Your task to perform on an android device: clear history in the chrome app Image 0: 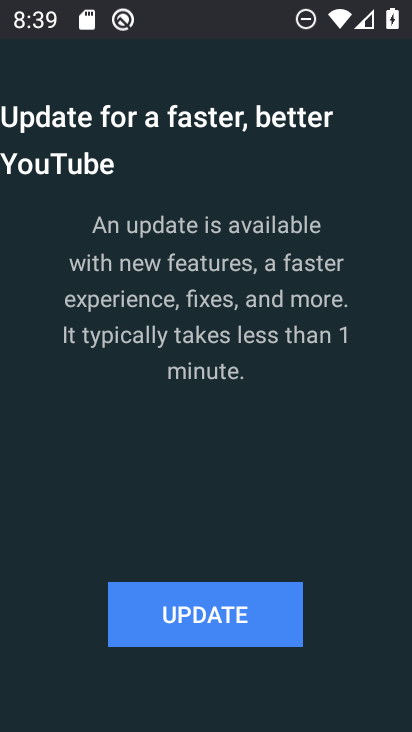
Step 0: press back button
Your task to perform on an android device: clear history in the chrome app Image 1: 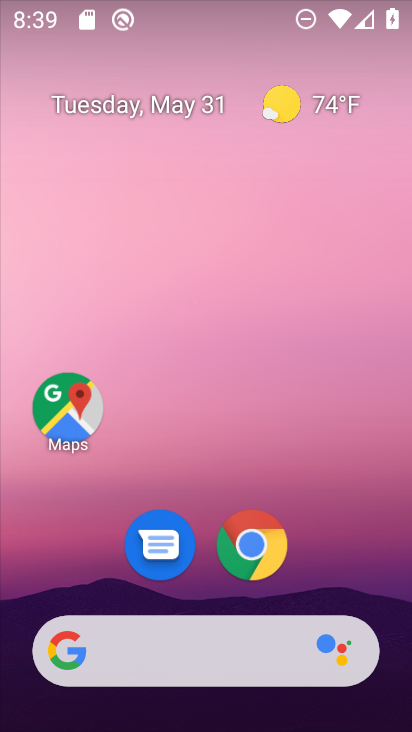
Step 1: drag from (315, 531) to (192, 24)
Your task to perform on an android device: clear history in the chrome app Image 2: 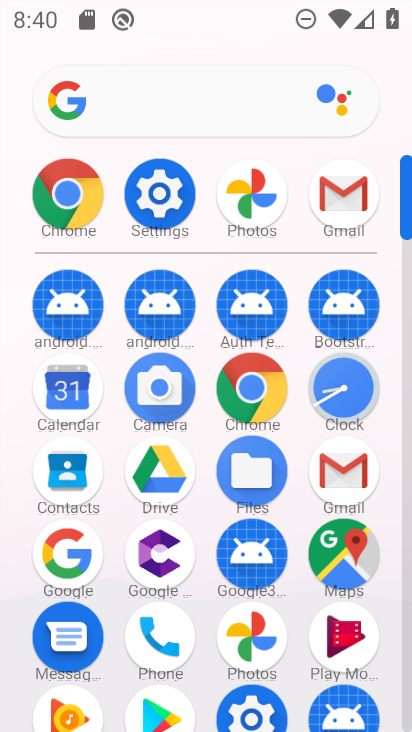
Step 2: drag from (19, 576) to (12, 255)
Your task to perform on an android device: clear history in the chrome app Image 3: 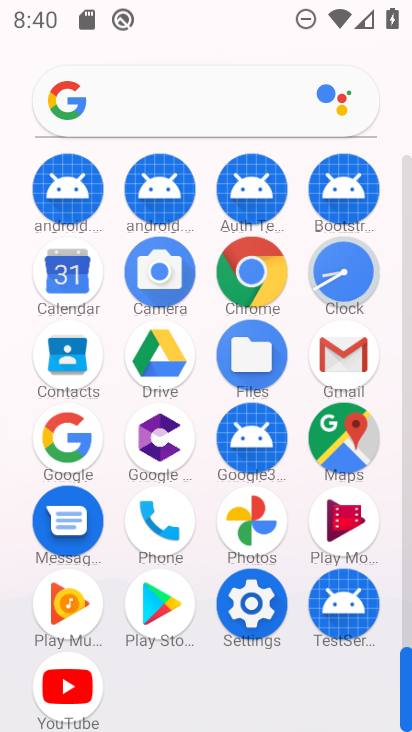
Step 3: drag from (21, 567) to (17, 257)
Your task to perform on an android device: clear history in the chrome app Image 4: 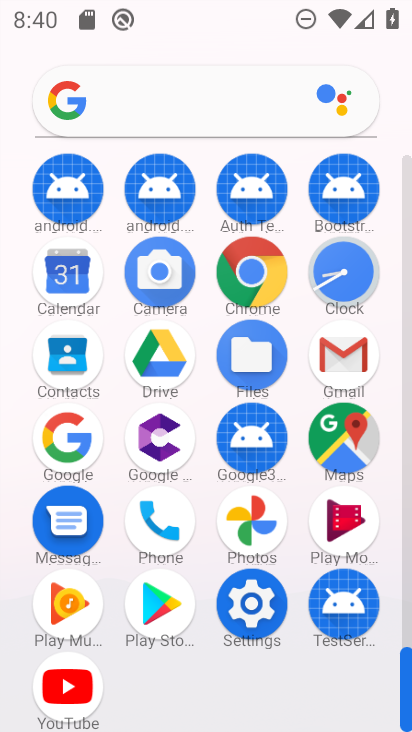
Step 4: click (247, 266)
Your task to perform on an android device: clear history in the chrome app Image 5: 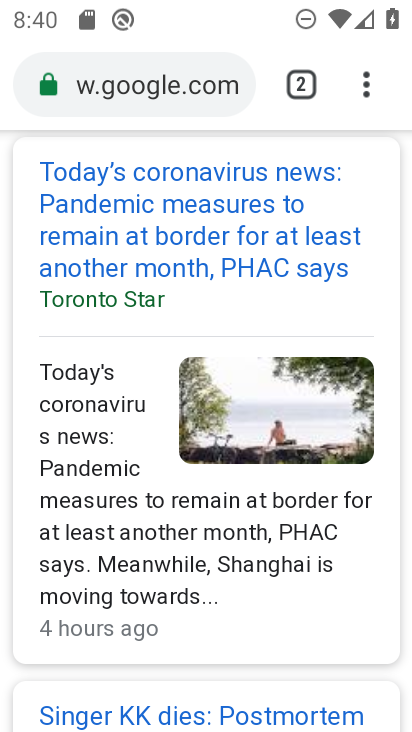
Step 5: drag from (359, 88) to (129, 468)
Your task to perform on an android device: clear history in the chrome app Image 6: 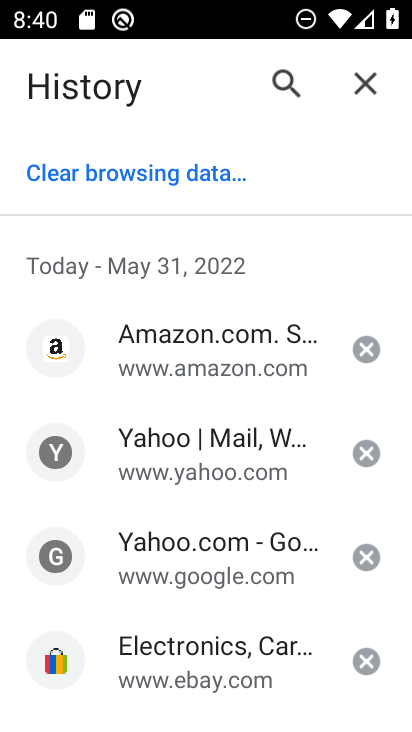
Step 6: click (165, 173)
Your task to perform on an android device: clear history in the chrome app Image 7: 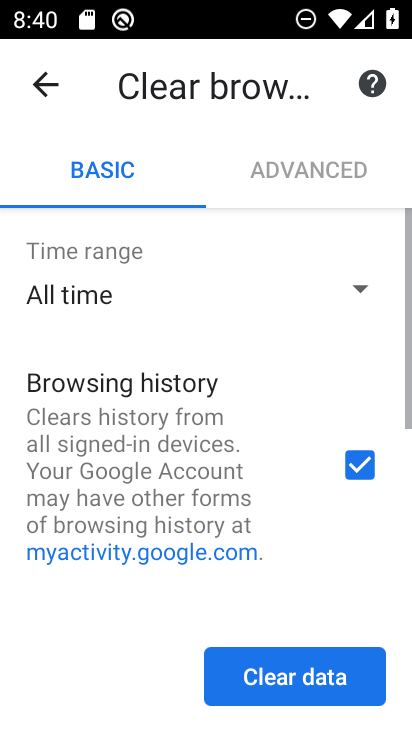
Step 7: click (336, 679)
Your task to perform on an android device: clear history in the chrome app Image 8: 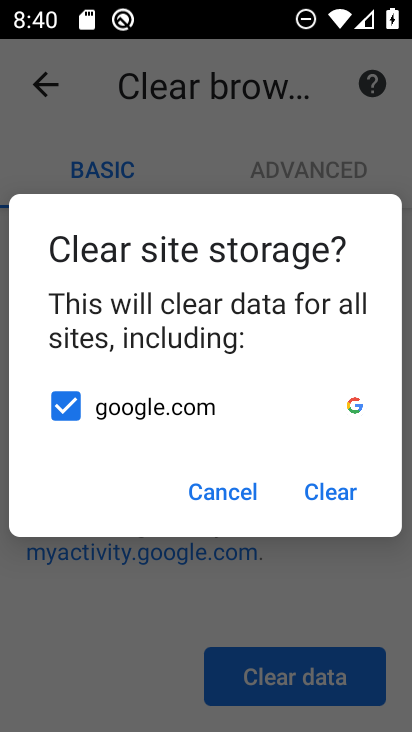
Step 8: click (336, 484)
Your task to perform on an android device: clear history in the chrome app Image 9: 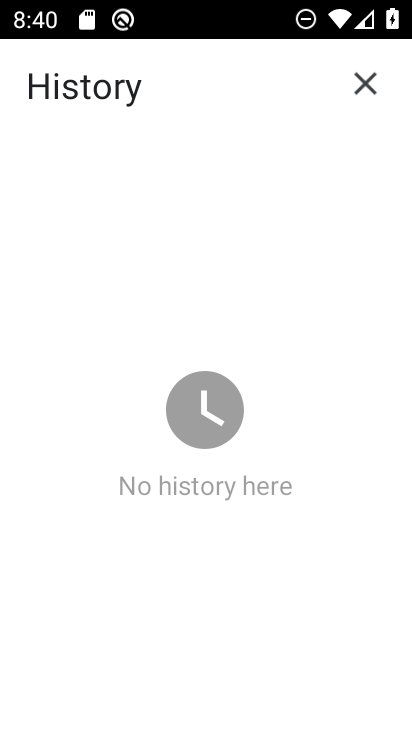
Step 9: task complete